Your task to perform on an android device: find snoozed emails in the gmail app Image 0: 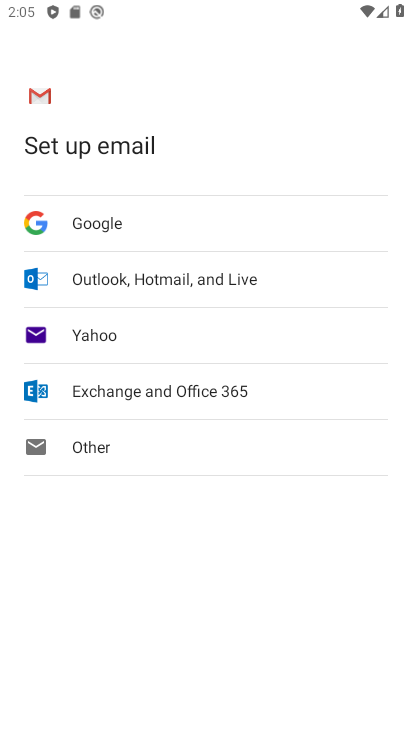
Step 0: click (123, 607)
Your task to perform on an android device: find snoozed emails in the gmail app Image 1: 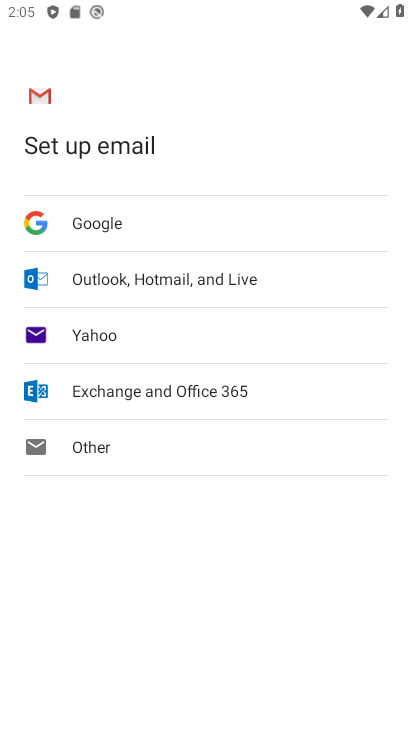
Step 1: press home button
Your task to perform on an android device: find snoozed emails in the gmail app Image 2: 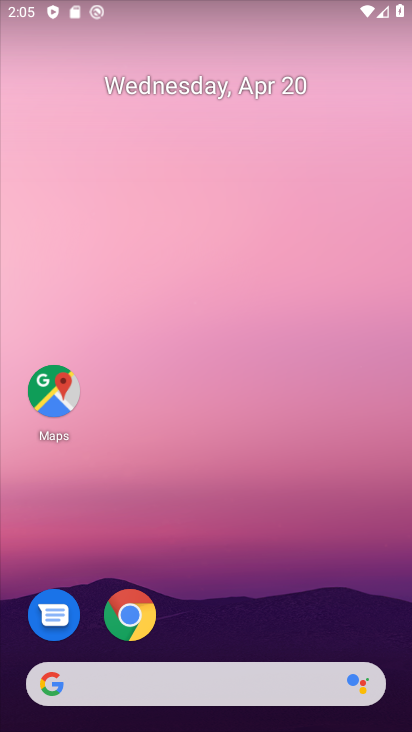
Step 2: drag from (309, 496) to (266, 60)
Your task to perform on an android device: find snoozed emails in the gmail app Image 3: 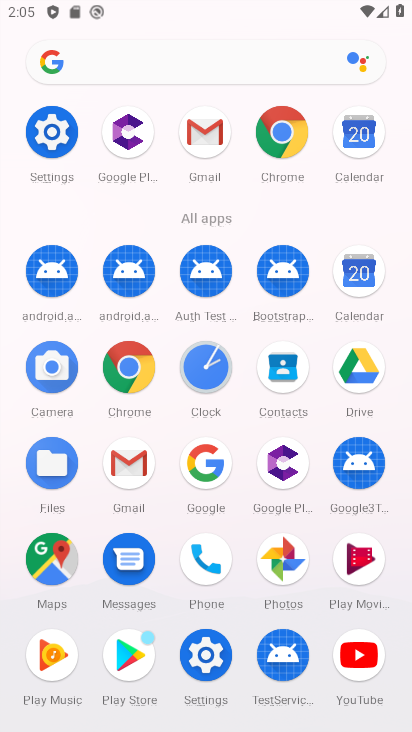
Step 3: click (184, 139)
Your task to perform on an android device: find snoozed emails in the gmail app Image 4: 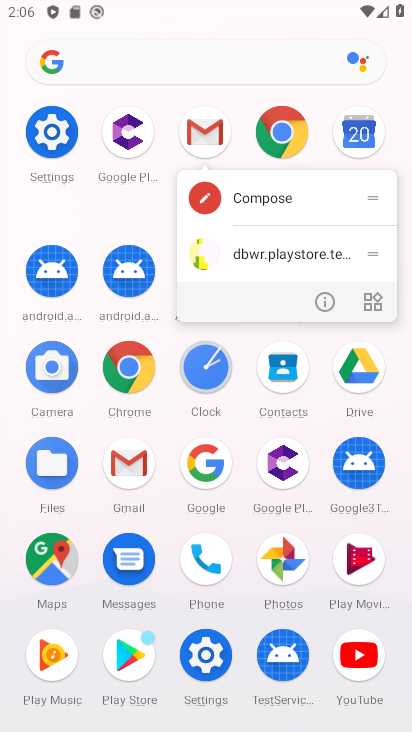
Step 4: click (173, 134)
Your task to perform on an android device: find snoozed emails in the gmail app Image 5: 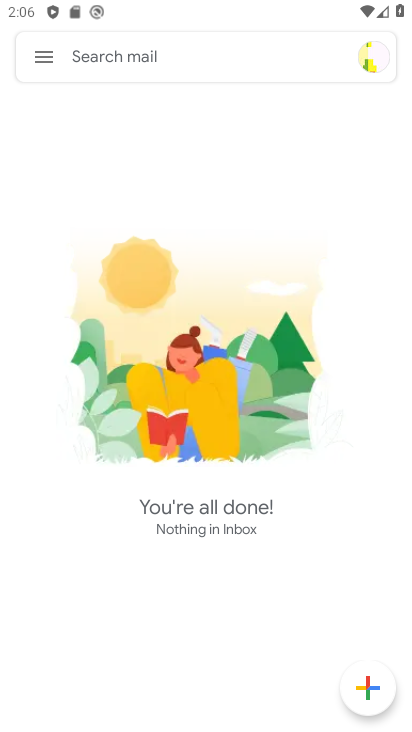
Step 5: click (47, 57)
Your task to perform on an android device: find snoozed emails in the gmail app Image 6: 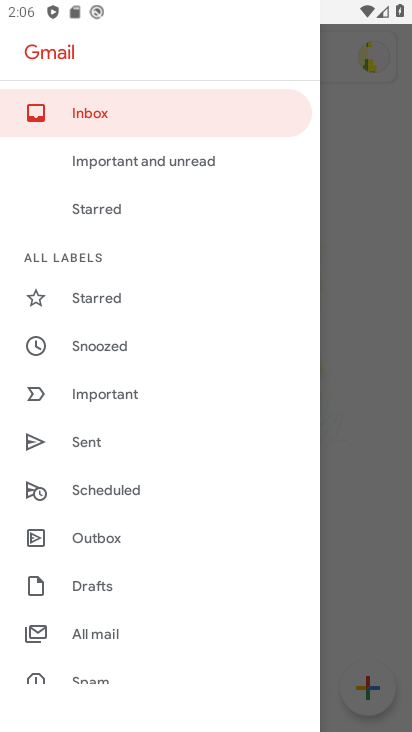
Step 6: click (95, 339)
Your task to perform on an android device: find snoozed emails in the gmail app Image 7: 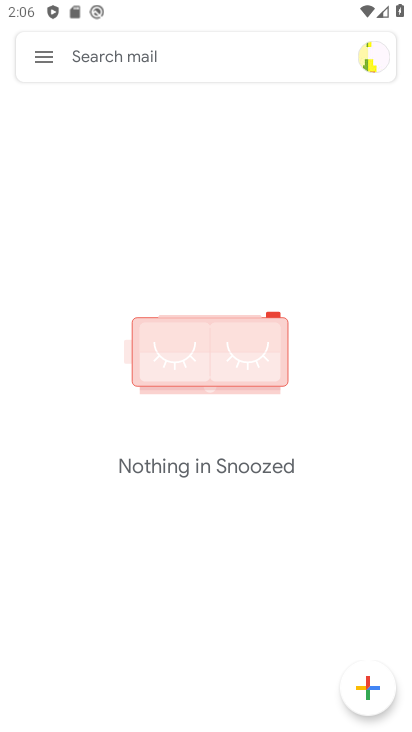
Step 7: task complete